Your task to perform on an android device: remove spam from my inbox in the gmail app Image 0: 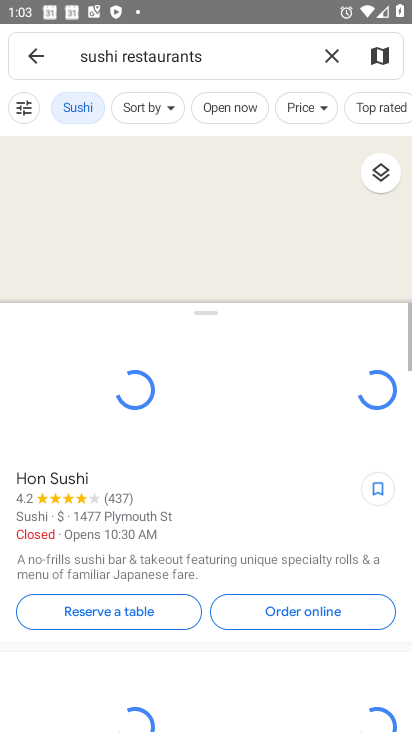
Step 0: press home button
Your task to perform on an android device: remove spam from my inbox in the gmail app Image 1: 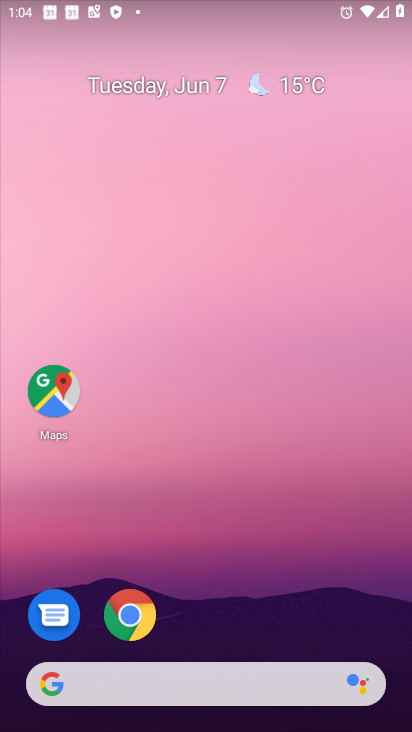
Step 1: drag from (204, 645) to (236, 202)
Your task to perform on an android device: remove spam from my inbox in the gmail app Image 2: 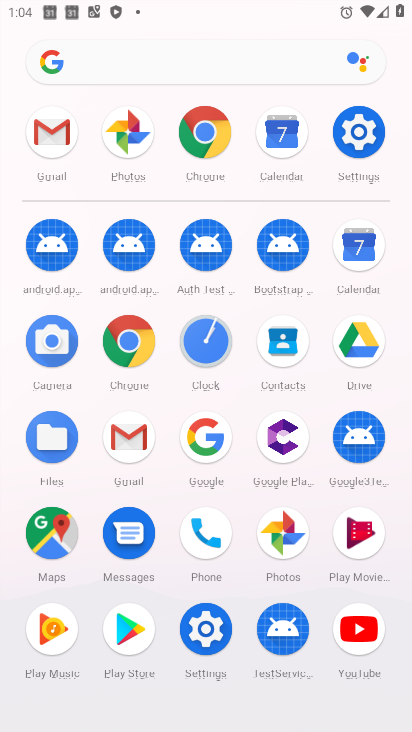
Step 2: click (56, 139)
Your task to perform on an android device: remove spam from my inbox in the gmail app Image 3: 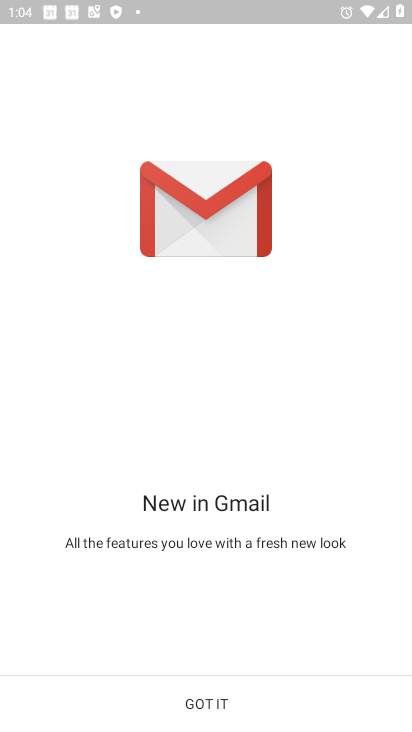
Step 3: click (189, 704)
Your task to perform on an android device: remove spam from my inbox in the gmail app Image 4: 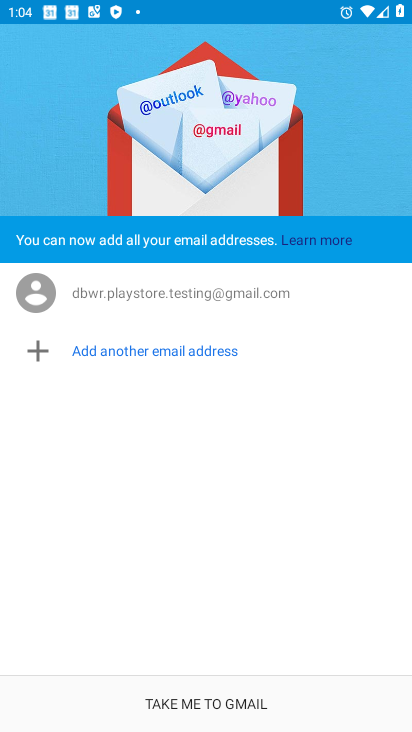
Step 4: click (199, 711)
Your task to perform on an android device: remove spam from my inbox in the gmail app Image 5: 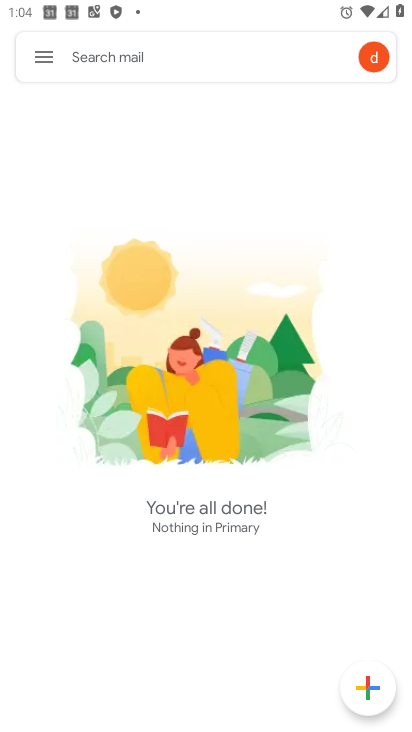
Step 5: click (40, 55)
Your task to perform on an android device: remove spam from my inbox in the gmail app Image 6: 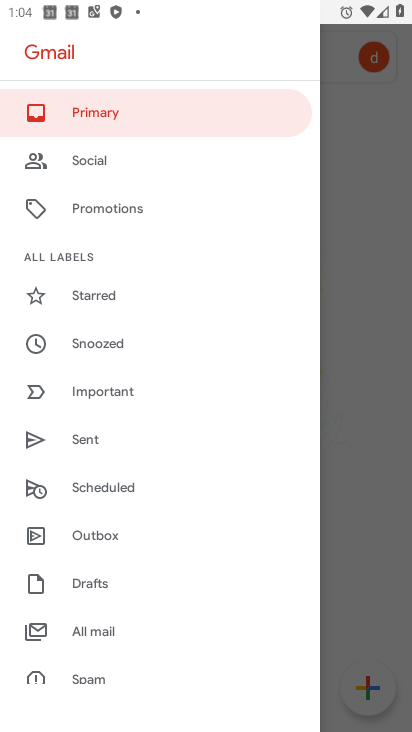
Step 6: click (105, 680)
Your task to perform on an android device: remove spam from my inbox in the gmail app Image 7: 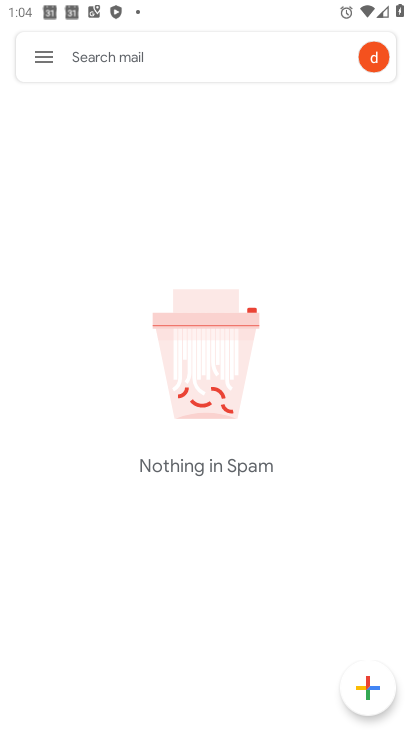
Step 7: task complete